Your task to perform on an android device: open a bookmark in the chrome app Image 0: 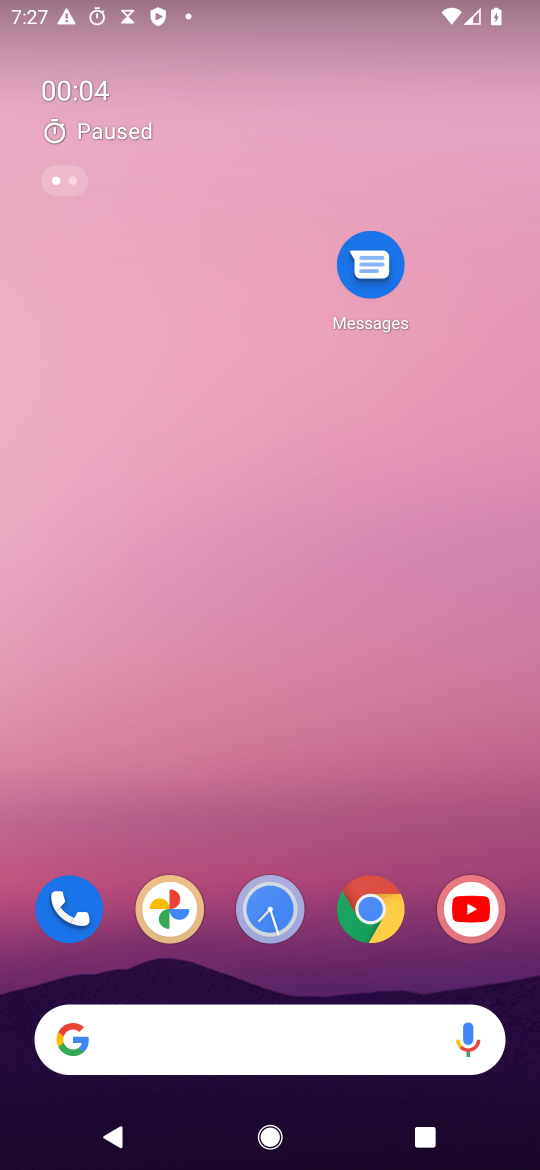
Step 0: click (375, 910)
Your task to perform on an android device: open a bookmark in the chrome app Image 1: 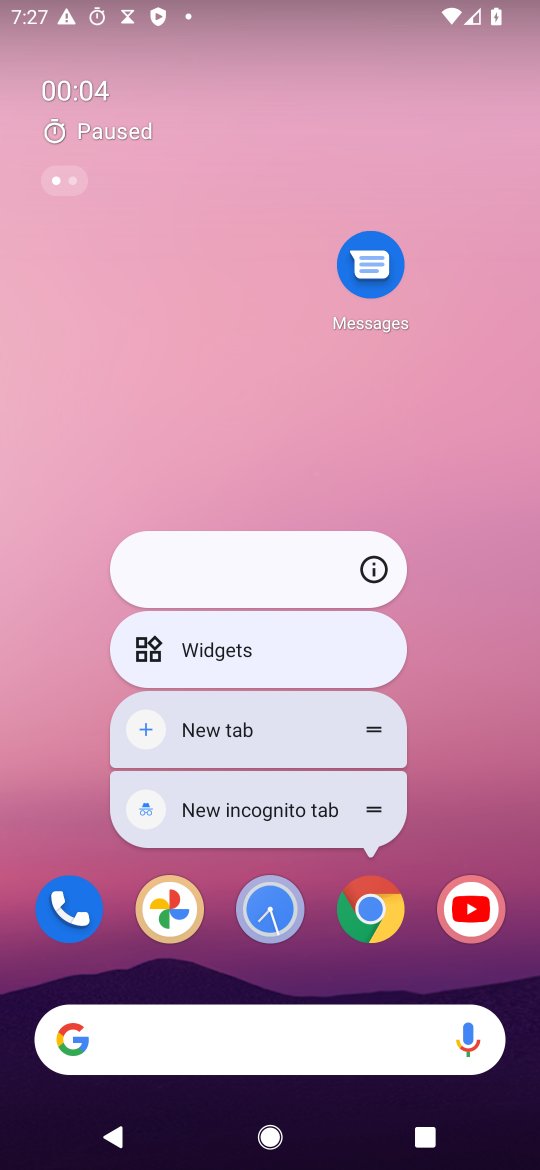
Step 1: click (375, 908)
Your task to perform on an android device: open a bookmark in the chrome app Image 2: 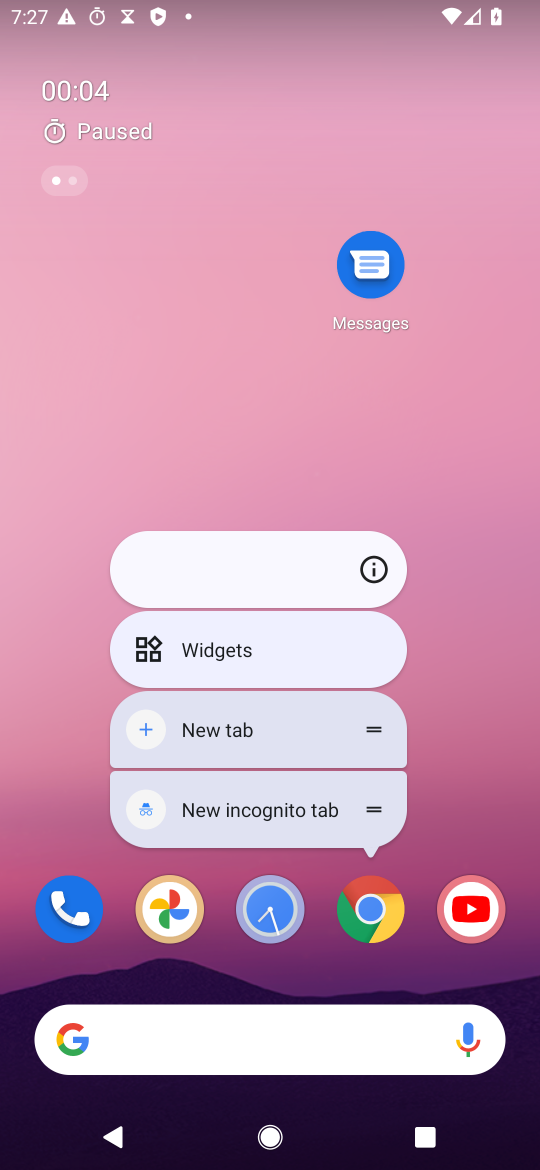
Step 2: click (375, 907)
Your task to perform on an android device: open a bookmark in the chrome app Image 3: 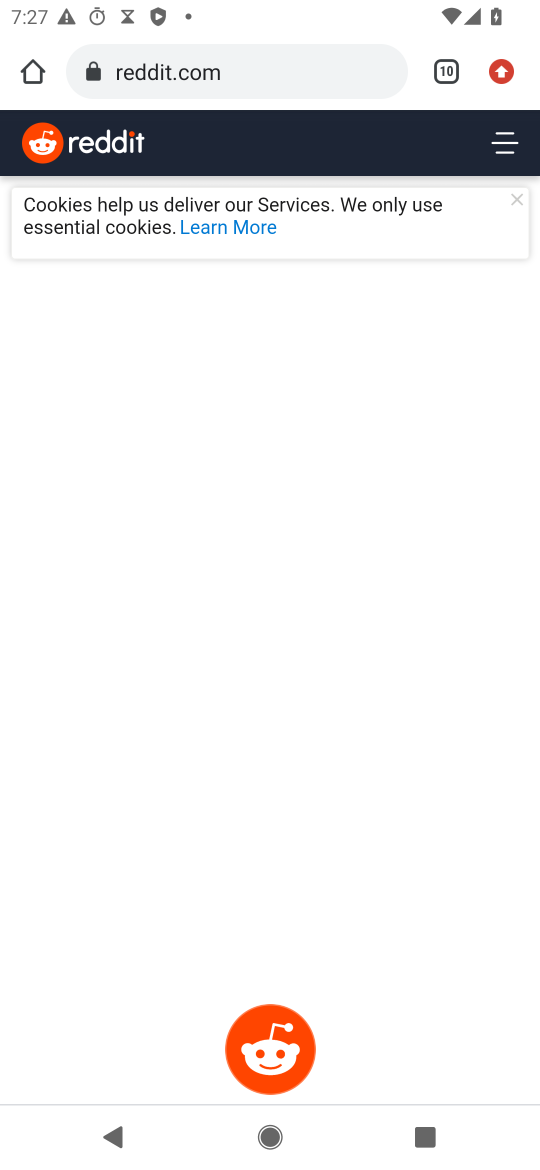
Step 3: drag from (503, 76) to (354, 515)
Your task to perform on an android device: open a bookmark in the chrome app Image 4: 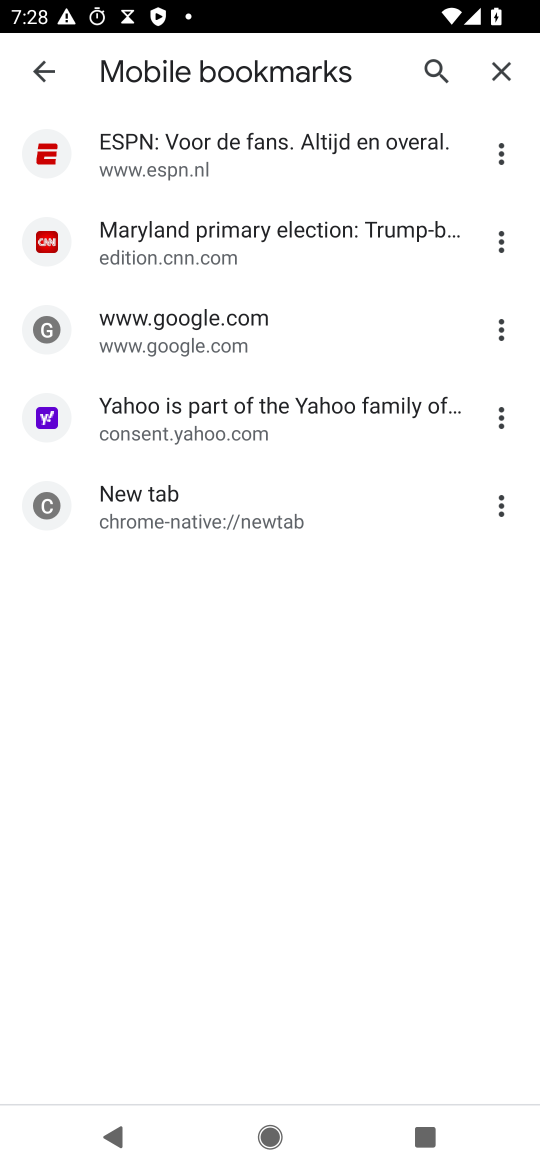
Step 4: click (219, 337)
Your task to perform on an android device: open a bookmark in the chrome app Image 5: 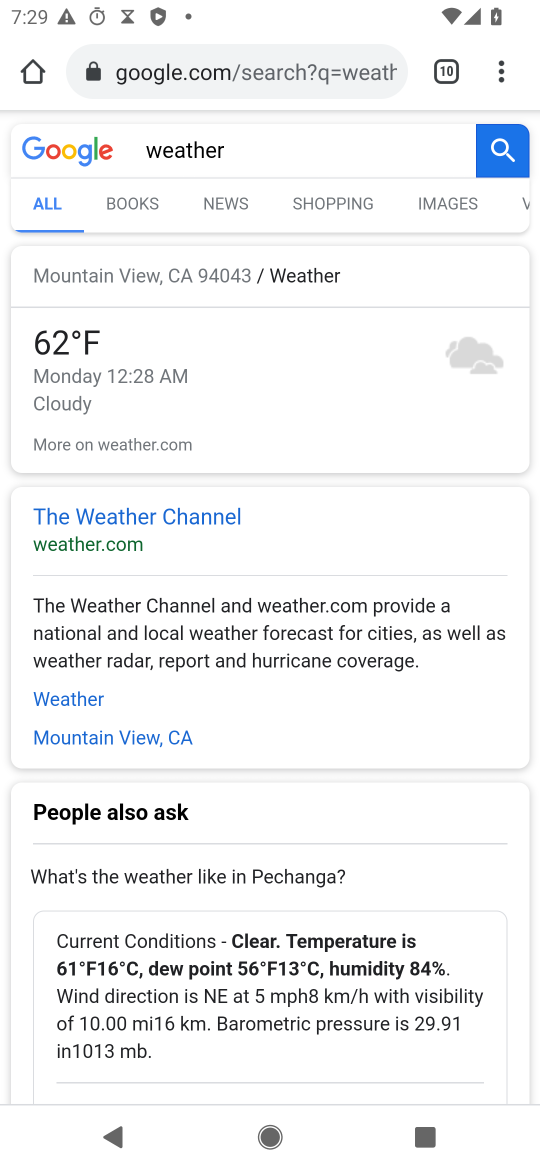
Step 5: task complete